Your task to perform on an android device: Search for Mexican restaurants on Maps Image 0: 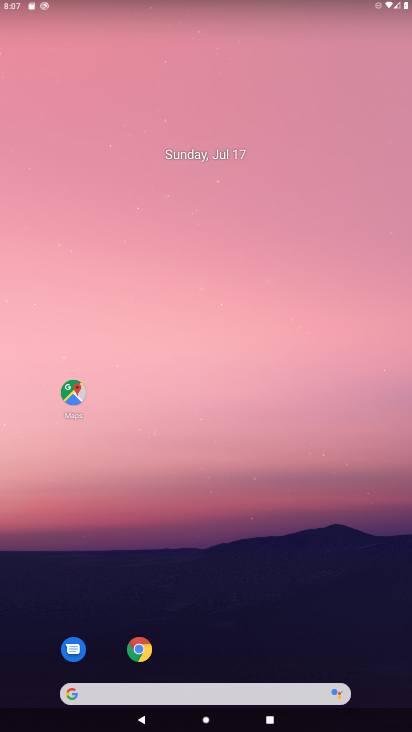
Step 0: drag from (208, 676) to (147, 160)
Your task to perform on an android device: Search for Mexican restaurants on Maps Image 1: 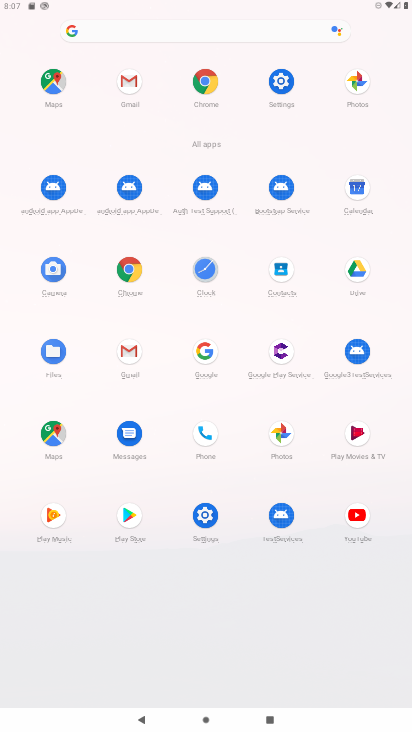
Step 1: click (39, 427)
Your task to perform on an android device: Search for Mexican restaurants on Maps Image 2: 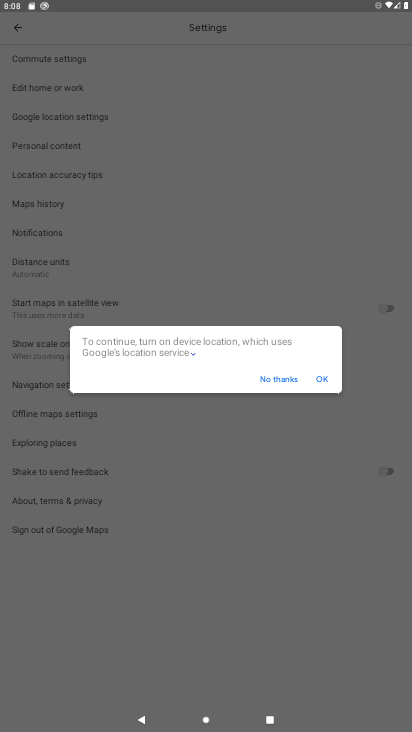
Step 2: click (318, 381)
Your task to perform on an android device: Search for Mexican restaurants on Maps Image 3: 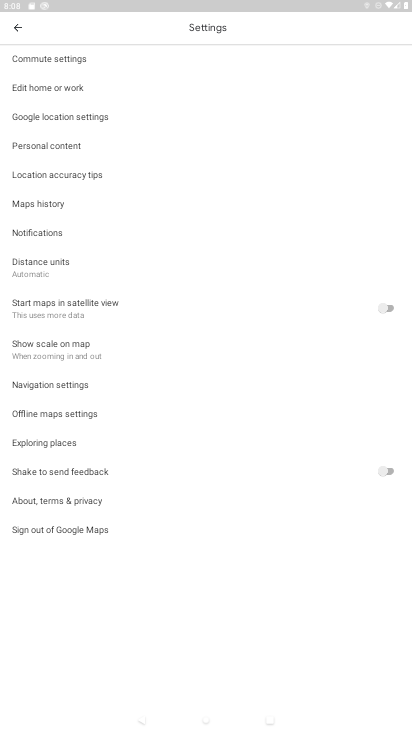
Step 3: click (18, 35)
Your task to perform on an android device: Search for Mexican restaurants on Maps Image 4: 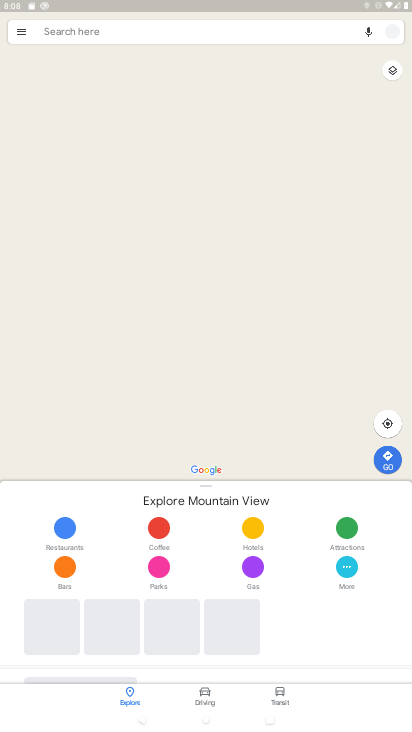
Step 4: click (91, 36)
Your task to perform on an android device: Search for Mexican restaurants on Maps Image 5: 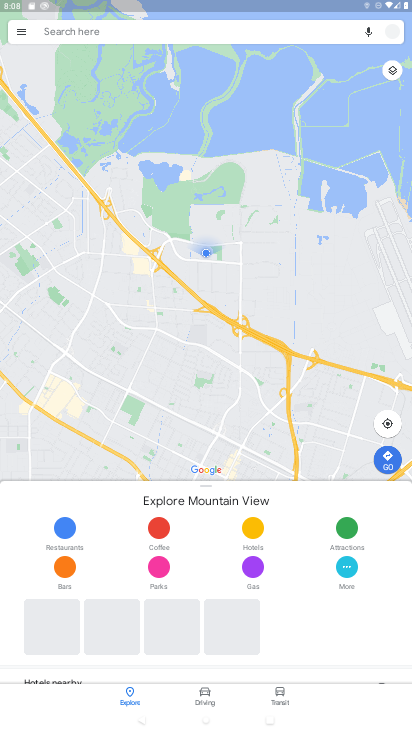
Step 5: click (133, 34)
Your task to perform on an android device: Search for Mexican restaurants on Maps Image 6: 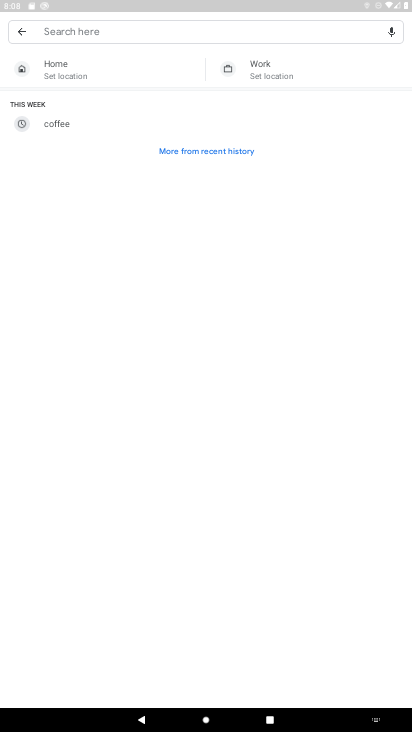
Step 6: type "Mexican restaurants"
Your task to perform on an android device: Search for Mexican restaurants on Maps Image 7: 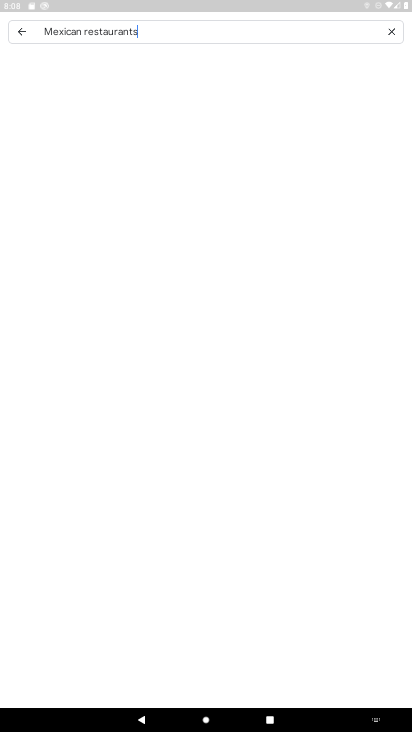
Step 7: type ""
Your task to perform on an android device: Search for Mexican restaurants on Maps Image 8: 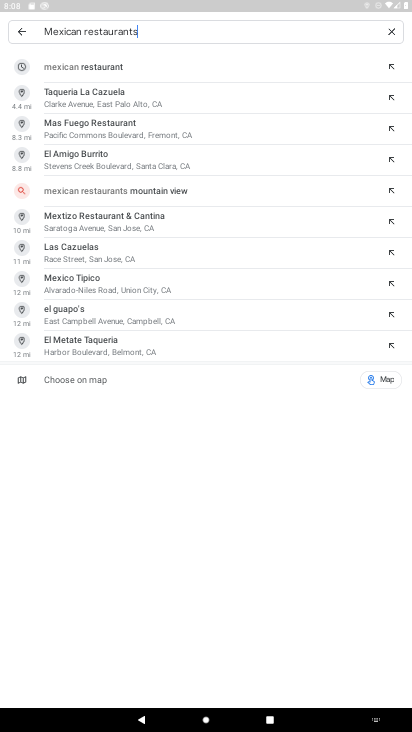
Step 8: click (55, 64)
Your task to perform on an android device: Search for Mexican restaurants on Maps Image 9: 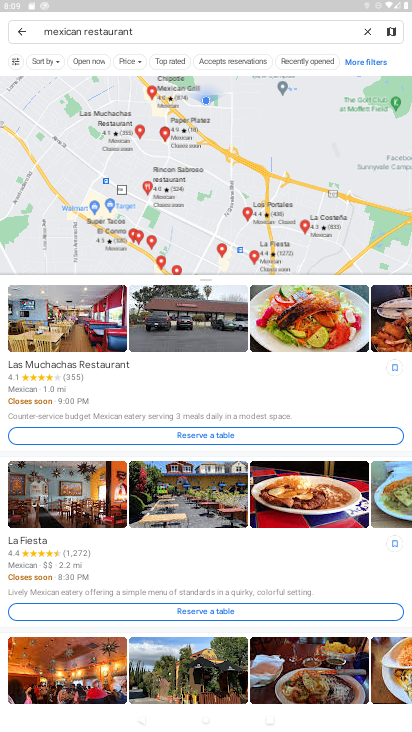
Step 9: task complete